Your task to perform on an android device: check out phone information Image 0: 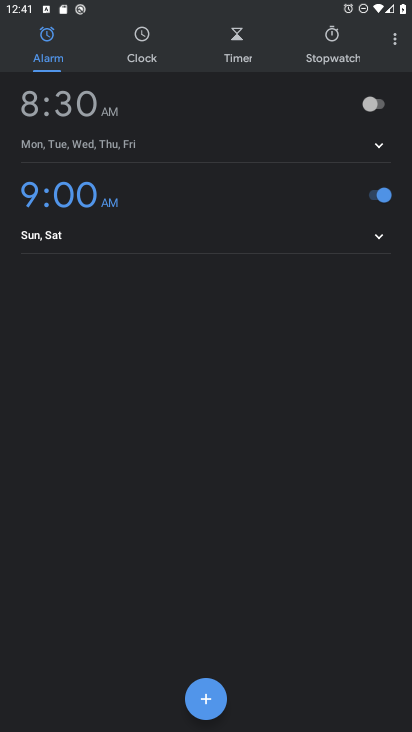
Step 0: press home button
Your task to perform on an android device: check out phone information Image 1: 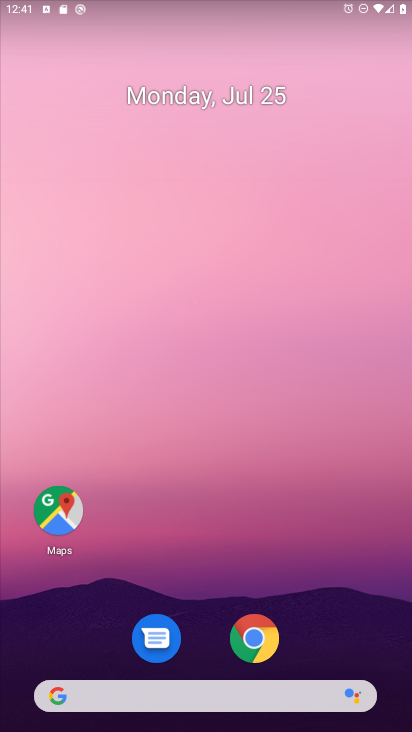
Step 1: drag from (222, 652) to (209, 104)
Your task to perform on an android device: check out phone information Image 2: 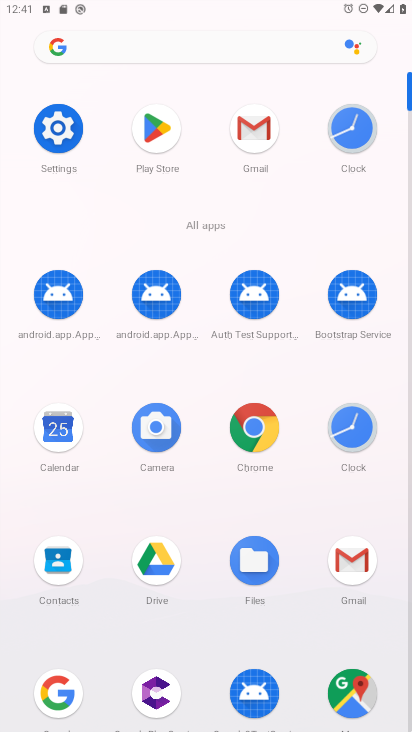
Step 2: click (30, 116)
Your task to perform on an android device: check out phone information Image 3: 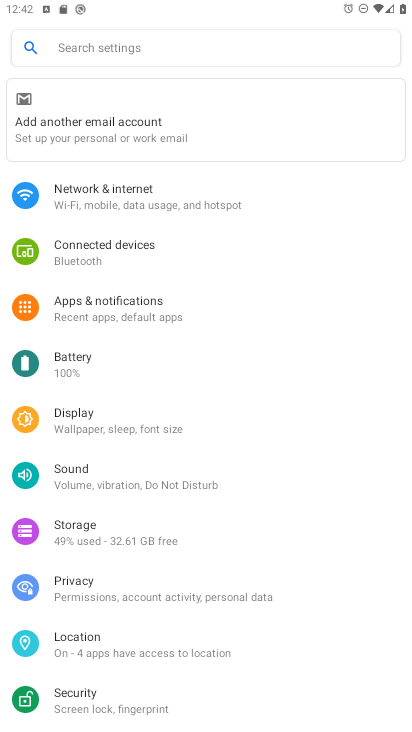
Step 3: task complete